Your task to perform on an android device: turn on showing notifications on the lock screen Image 0: 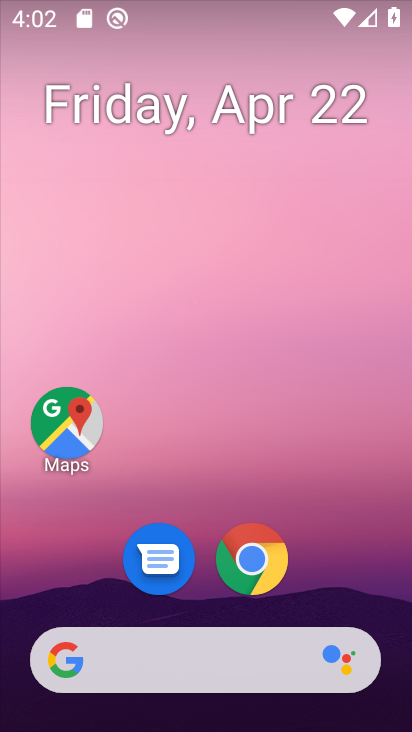
Step 0: drag from (266, 354) to (254, 105)
Your task to perform on an android device: turn on showing notifications on the lock screen Image 1: 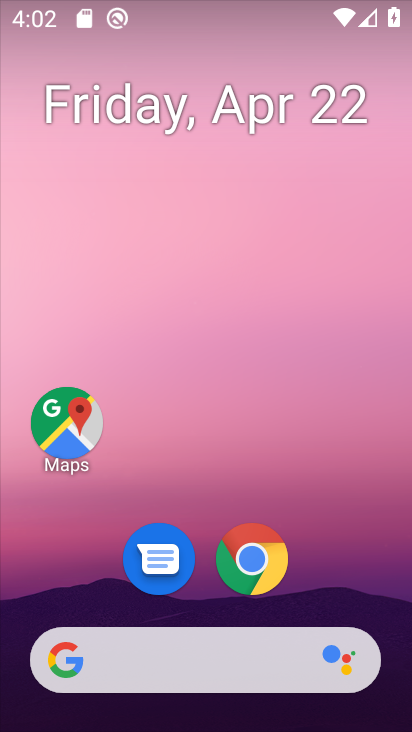
Step 1: drag from (205, 465) to (223, 126)
Your task to perform on an android device: turn on showing notifications on the lock screen Image 2: 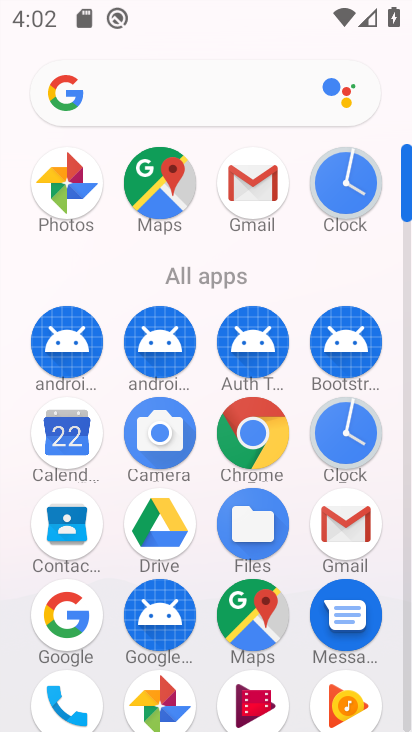
Step 2: drag from (211, 251) to (225, 59)
Your task to perform on an android device: turn on showing notifications on the lock screen Image 3: 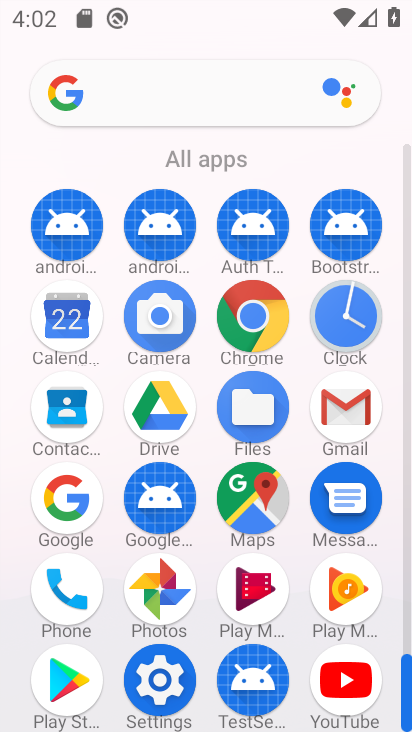
Step 3: click (175, 678)
Your task to perform on an android device: turn on showing notifications on the lock screen Image 4: 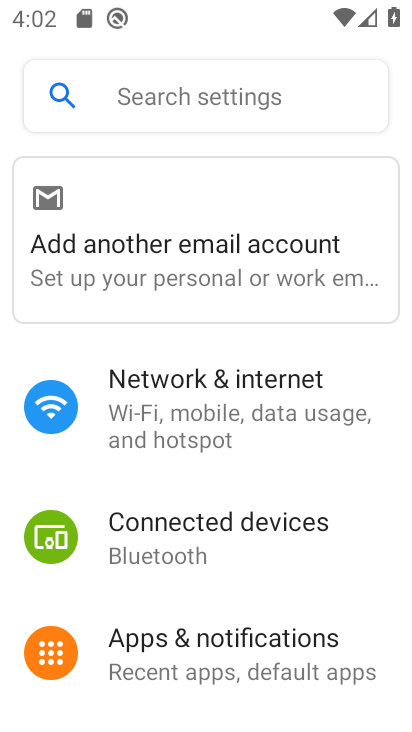
Step 4: click (251, 662)
Your task to perform on an android device: turn on showing notifications on the lock screen Image 5: 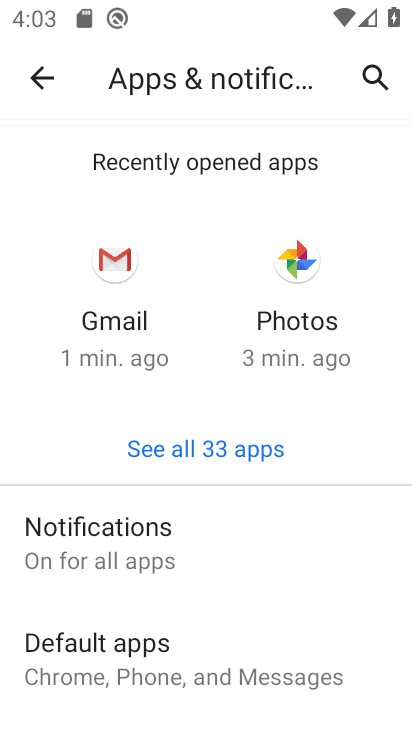
Step 5: click (220, 564)
Your task to perform on an android device: turn on showing notifications on the lock screen Image 6: 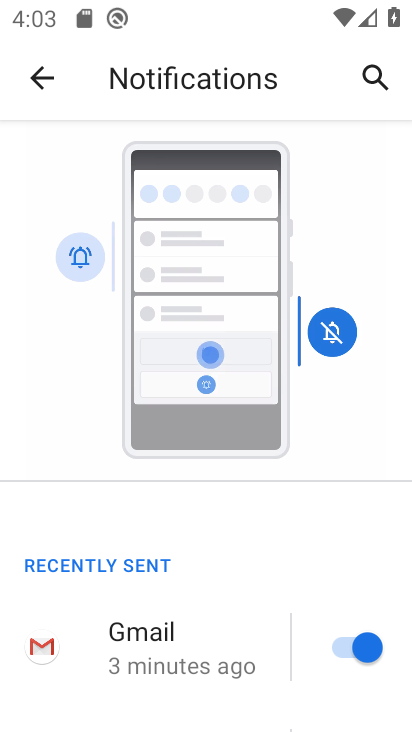
Step 6: drag from (222, 618) to (248, 194)
Your task to perform on an android device: turn on showing notifications on the lock screen Image 7: 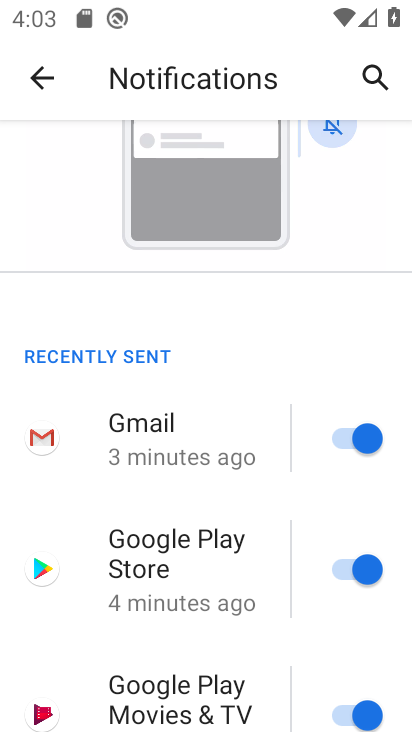
Step 7: drag from (198, 430) to (224, 211)
Your task to perform on an android device: turn on showing notifications on the lock screen Image 8: 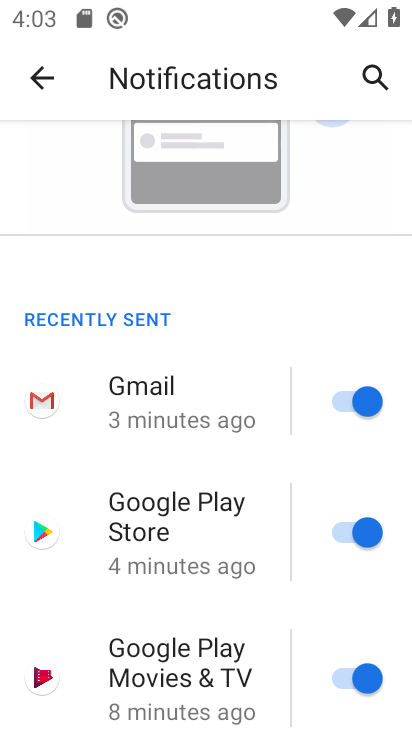
Step 8: drag from (182, 638) to (198, 196)
Your task to perform on an android device: turn on showing notifications on the lock screen Image 9: 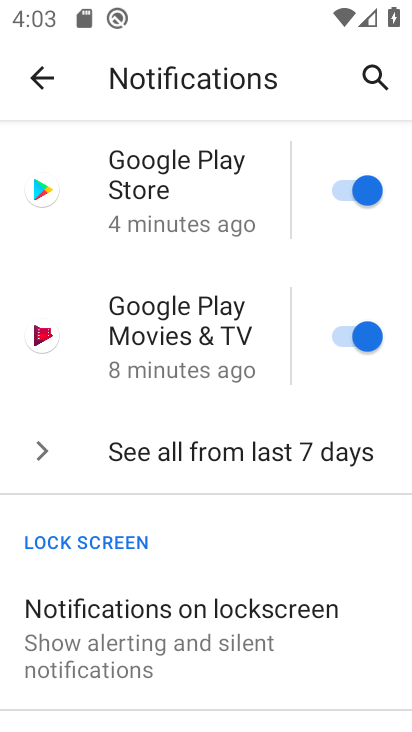
Step 9: click (181, 643)
Your task to perform on an android device: turn on showing notifications on the lock screen Image 10: 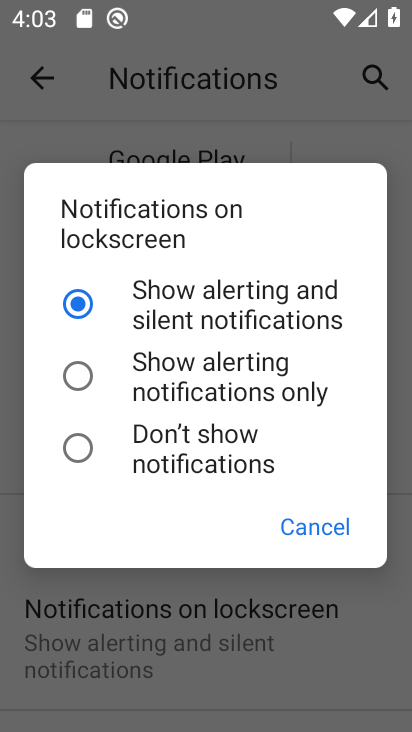
Step 10: click (331, 527)
Your task to perform on an android device: turn on showing notifications on the lock screen Image 11: 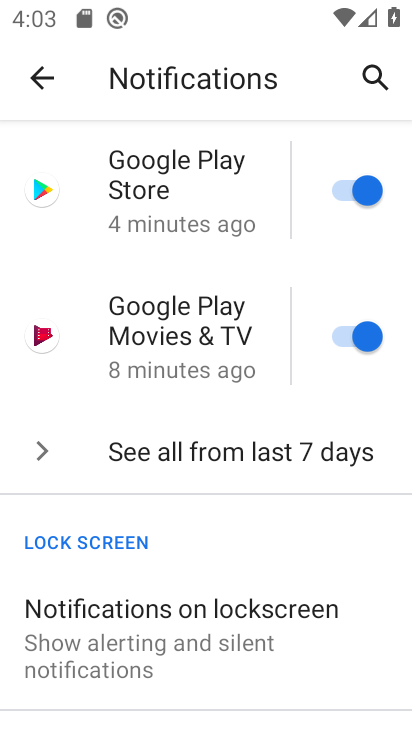
Step 11: task complete